Your task to perform on an android device: Go to privacy settings Image 0: 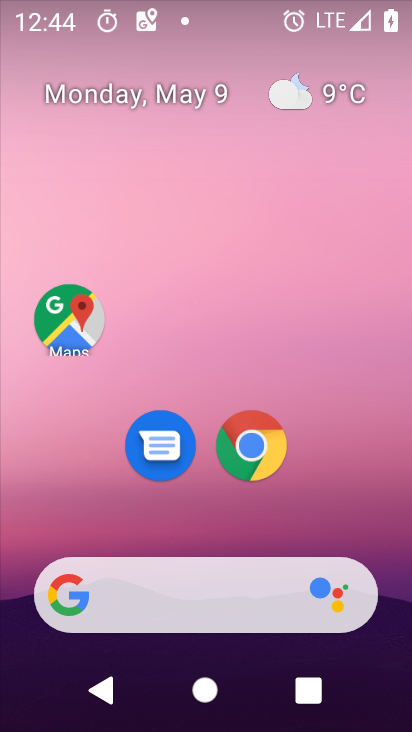
Step 0: drag from (332, 543) to (347, 28)
Your task to perform on an android device: Go to privacy settings Image 1: 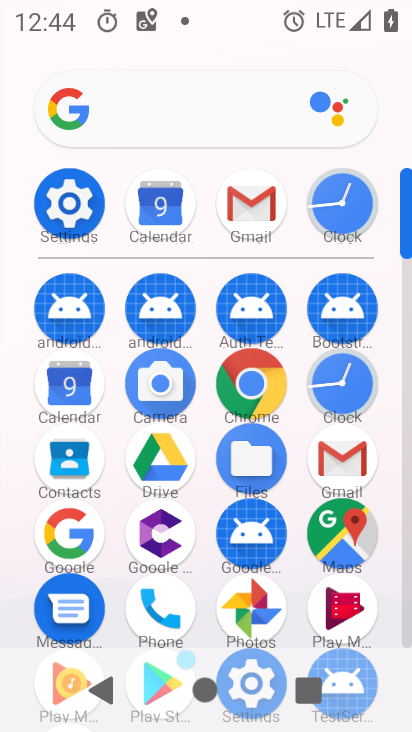
Step 1: click (70, 200)
Your task to perform on an android device: Go to privacy settings Image 2: 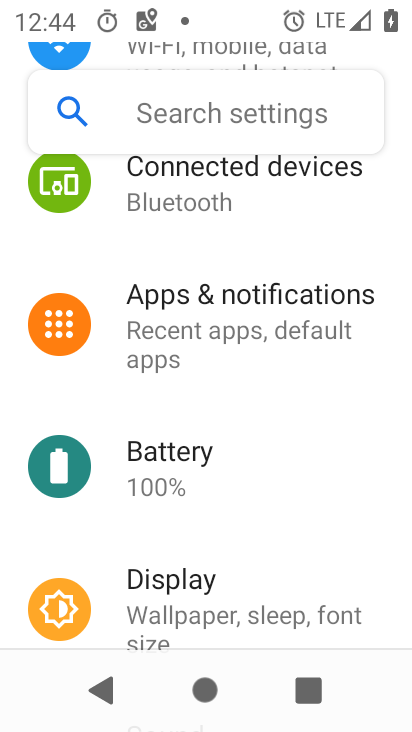
Step 2: drag from (334, 467) to (346, 178)
Your task to perform on an android device: Go to privacy settings Image 3: 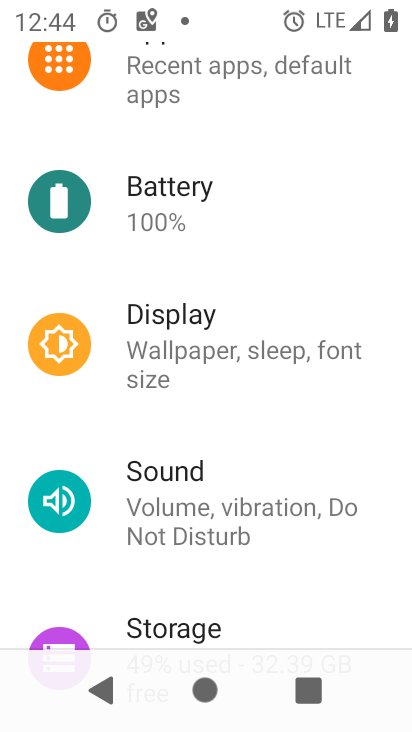
Step 3: drag from (259, 452) to (278, 151)
Your task to perform on an android device: Go to privacy settings Image 4: 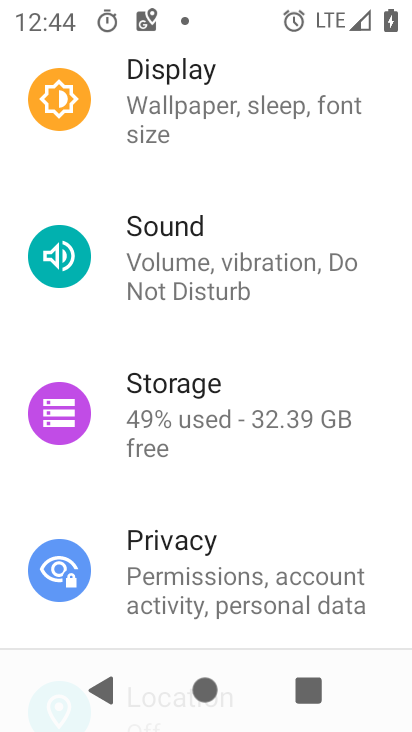
Step 4: click (139, 563)
Your task to perform on an android device: Go to privacy settings Image 5: 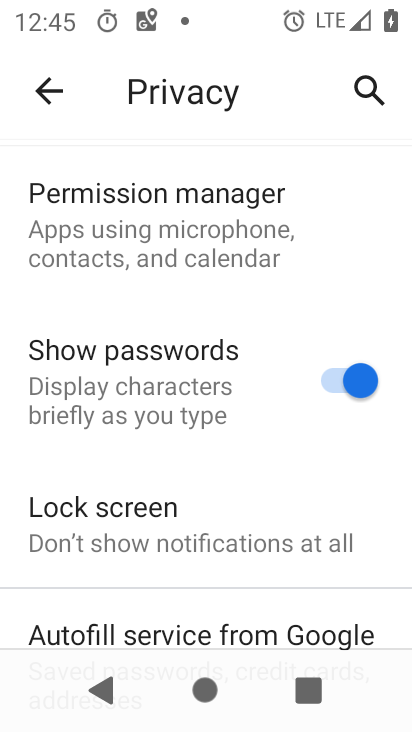
Step 5: task complete